Your task to perform on an android device: Open Reddit.com Image 0: 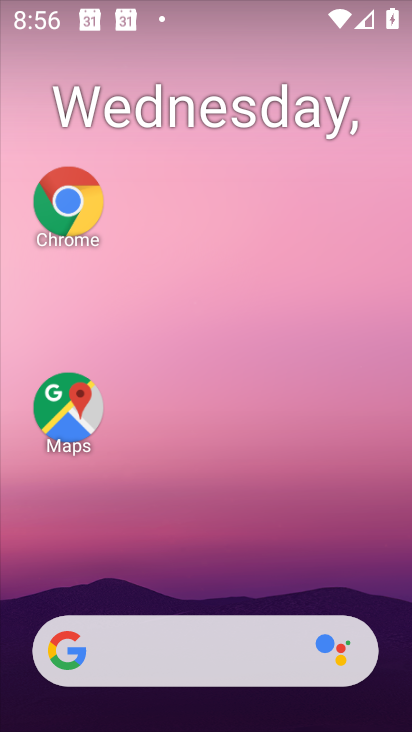
Step 0: click (105, 207)
Your task to perform on an android device: Open Reddit.com Image 1: 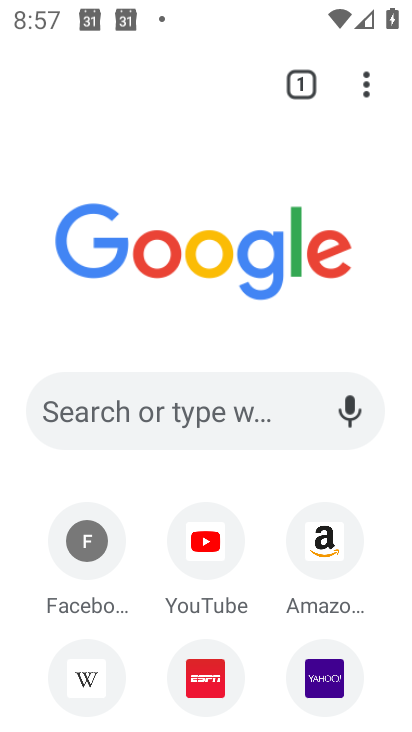
Step 1: click (180, 439)
Your task to perform on an android device: Open Reddit.com Image 2: 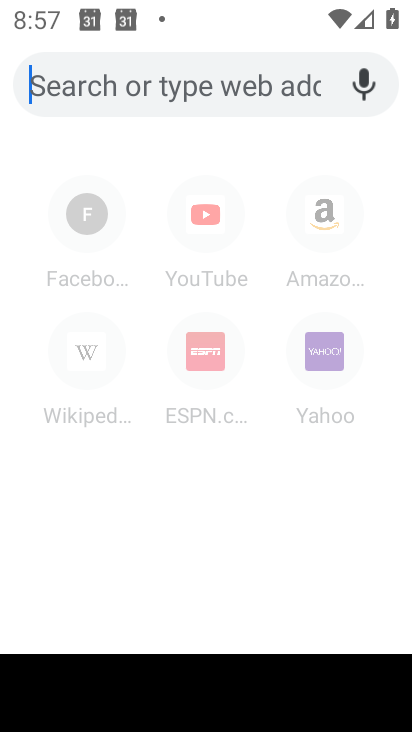
Step 2: type "reddit"
Your task to perform on an android device: Open Reddit.com Image 3: 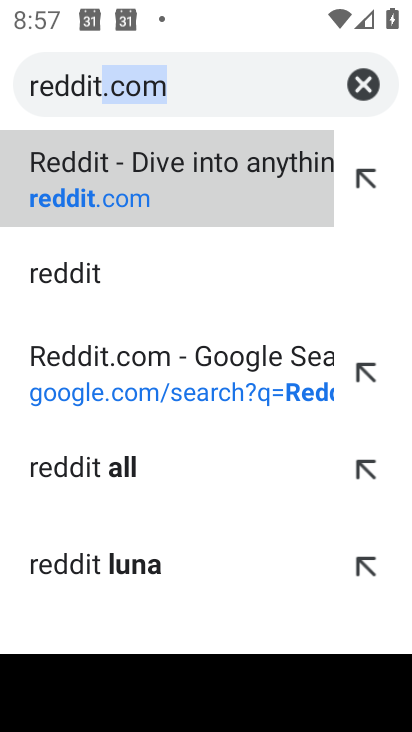
Step 3: click (157, 203)
Your task to perform on an android device: Open Reddit.com Image 4: 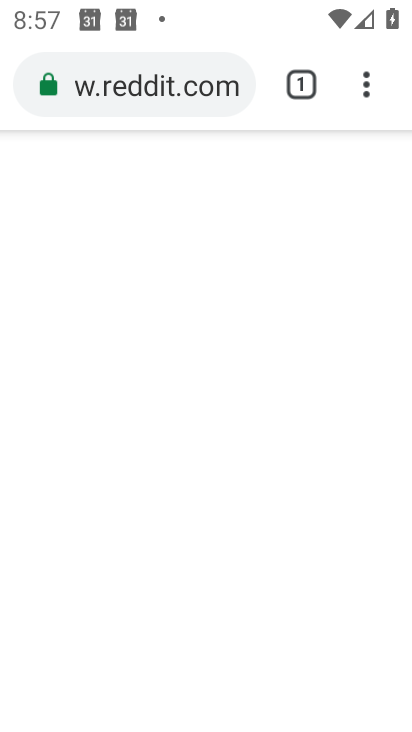
Step 4: task complete